Your task to perform on an android device: see sites visited before in the chrome app Image 0: 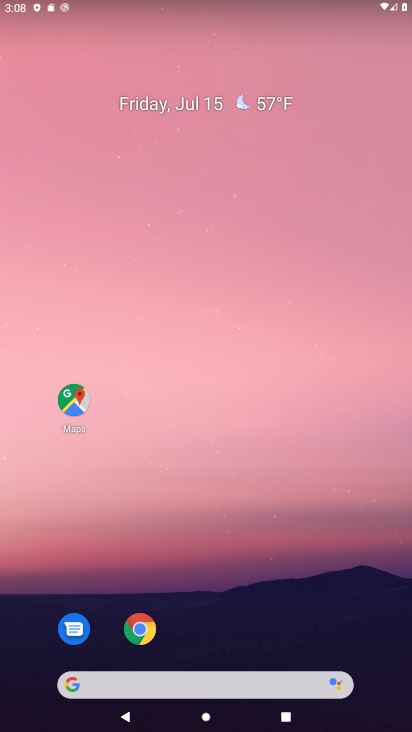
Step 0: drag from (325, 681) to (211, 283)
Your task to perform on an android device: see sites visited before in the chrome app Image 1: 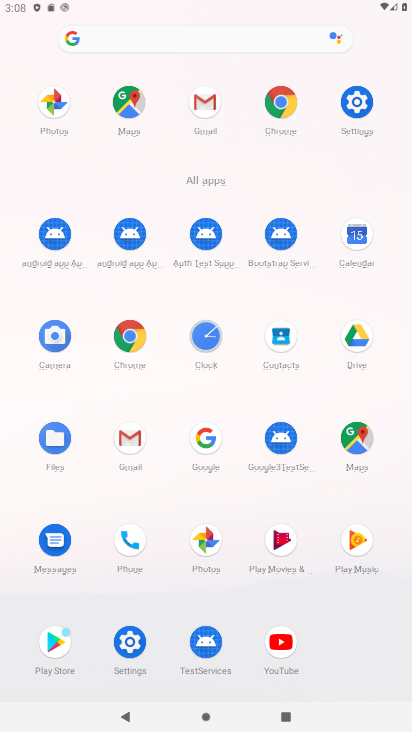
Step 1: click (119, 325)
Your task to perform on an android device: see sites visited before in the chrome app Image 2: 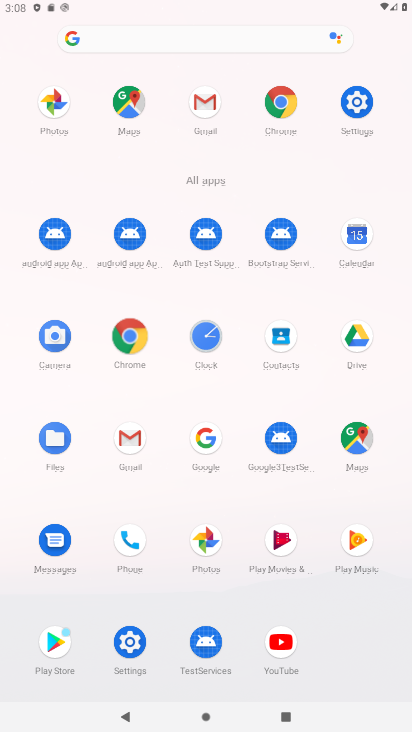
Step 2: click (125, 327)
Your task to perform on an android device: see sites visited before in the chrome app Image 3: 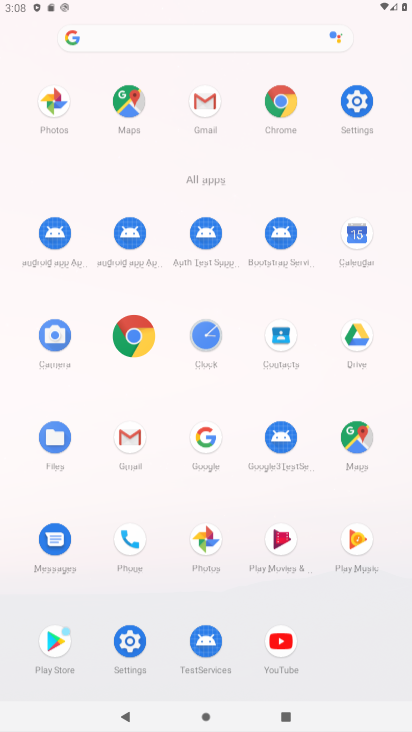
Step 3: click (126, 325)
Your task to perform on an android device: see sites visited before in the chrome app Image 4: 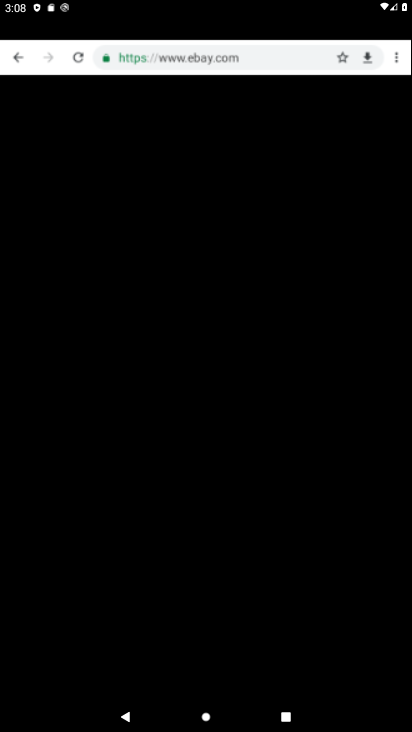
Step 4: click (131, 325)
Your task to perform on an android device: see sites visited before in the chrome app Image 5: 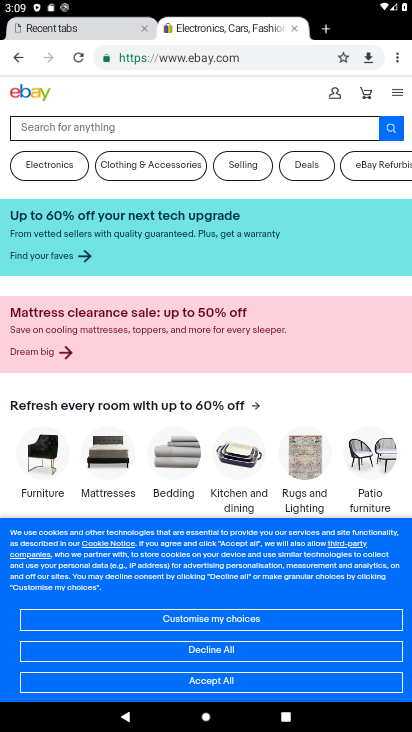
Step 5: drag from (397, 58) to (311, 150)
Your task to perform on an android device: see sites visited before in the chrome app Image 6: 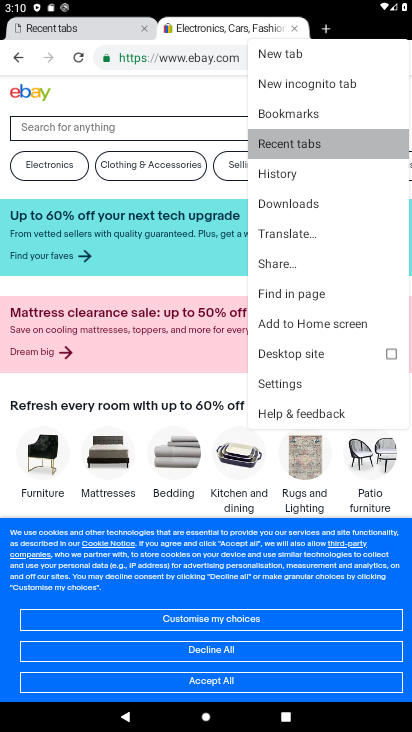
Step 6: click (311, 150)
Your task to perform on an android device: see sites visited before in the chrome app Image 7: 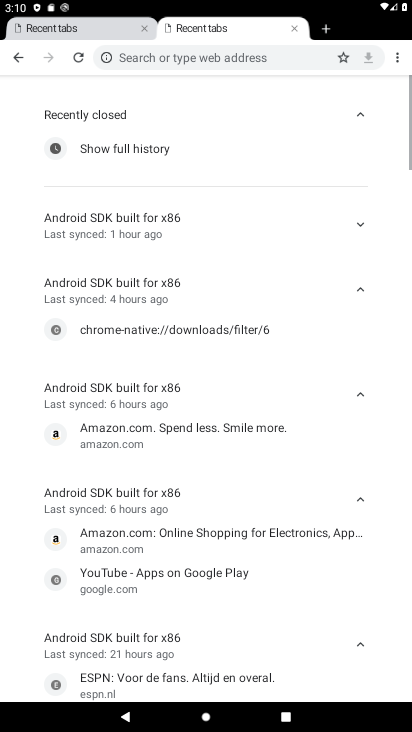
Step 7: task complete